Your task to perform on an android device: change text size in settings app Image 0: 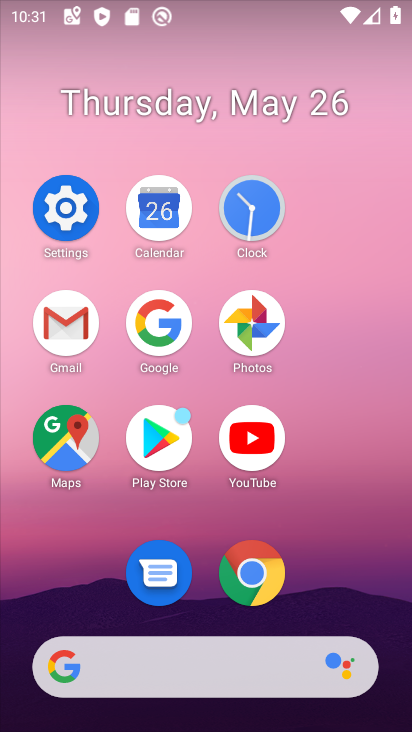
Step 0: click (80, 205)
Your task to perform on an android device: change text size in settings app Image 1: 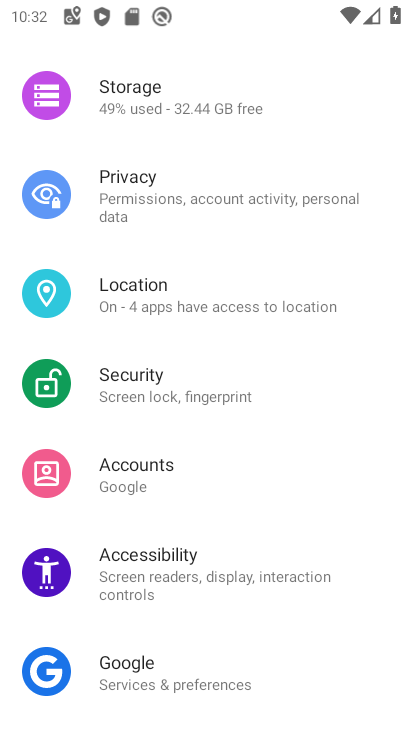
Step 1: drag from (271, 238) to (343, 700)
Your task to perform on an android device: change text size in settings app Image 2: 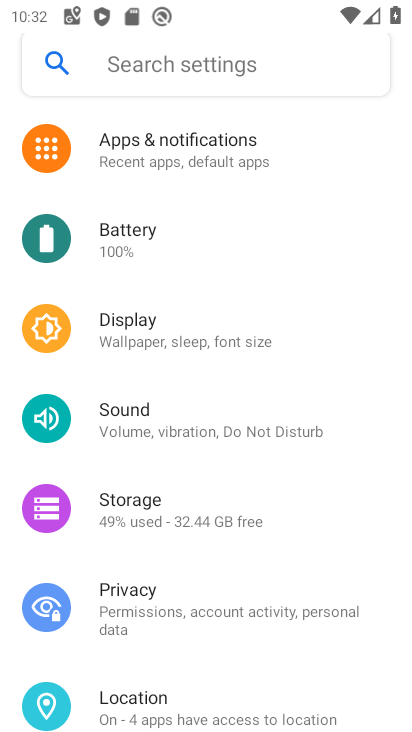
Step 2: click (164, 326)
Your task to perform on an android device: change text size in settings app Image 3: 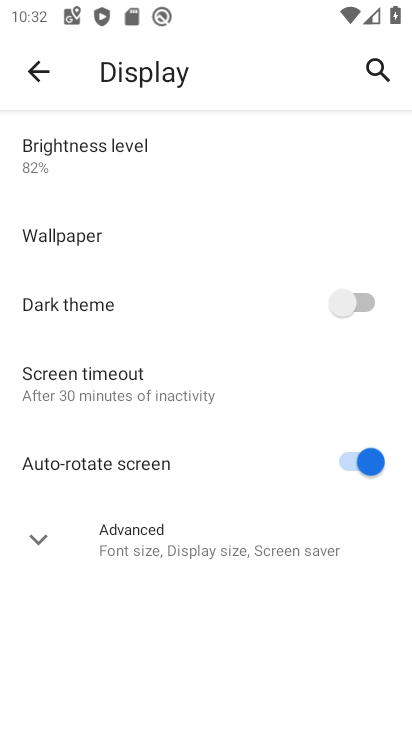
Step 3: click (209, 553)
Your task to perform on an android device: change text size in settings app Image 4: 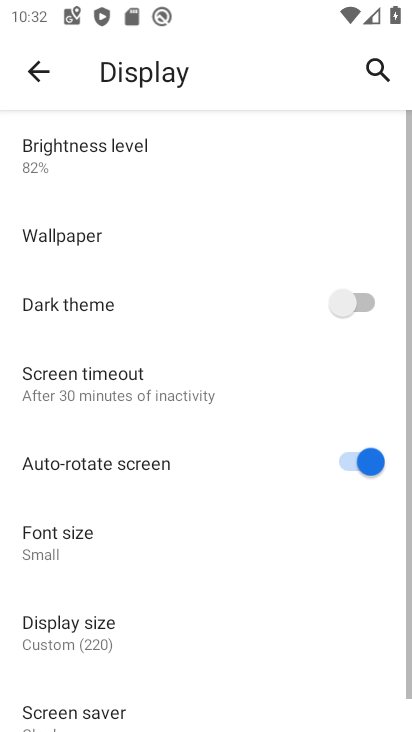
Step 4: click (47, 549)
Your task to perform on an android device: change text size in settings app Image 5: 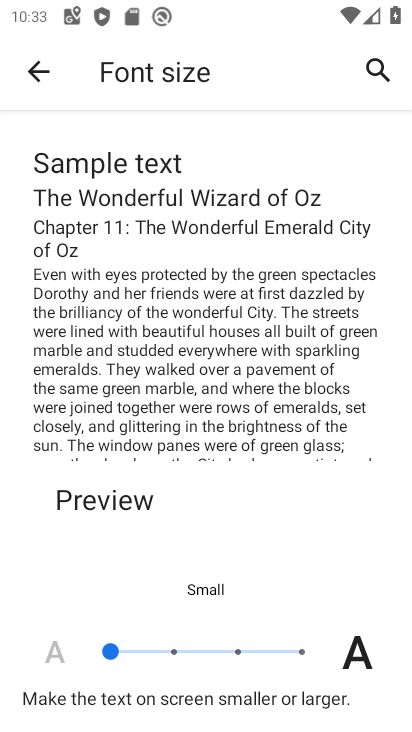
Step 5: click (171, 654)
Your task to perform on an android device: change text size in settings app Image 6: 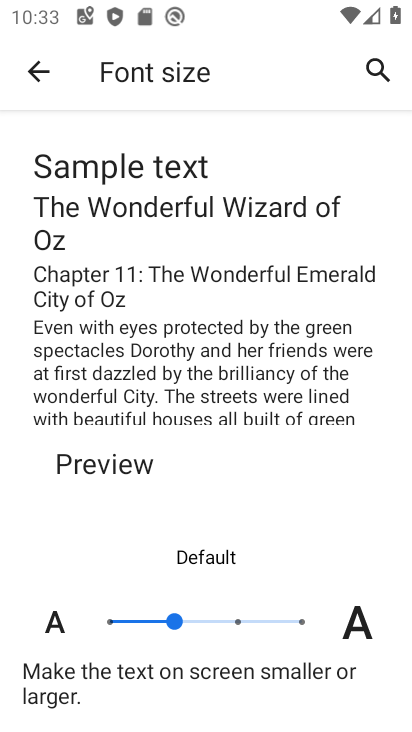
Step 6: task complete